Your task to perform on an android device: stop showing notifications on the lock screen Image 0: 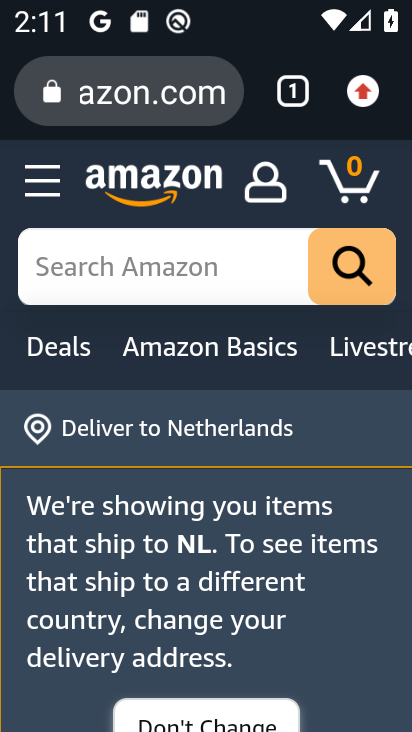
Step 0: press home button
Your task to perform on an android device: stop showing notifications on the lock screen Image 1: 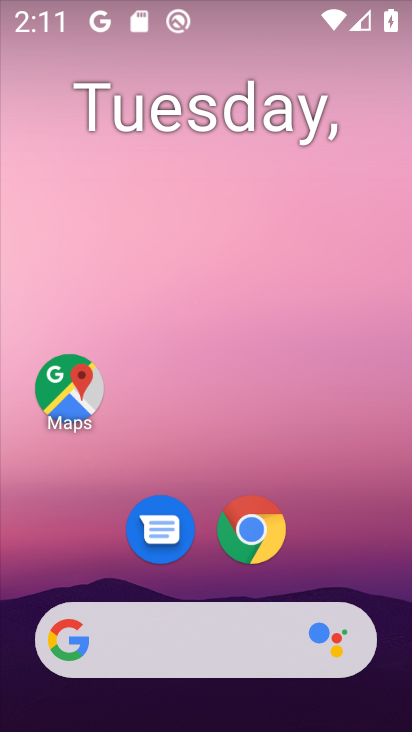
Step 1: click (334, 258)
Your task to perform on an android device: stop showing notifications on the lock screen Image 2: 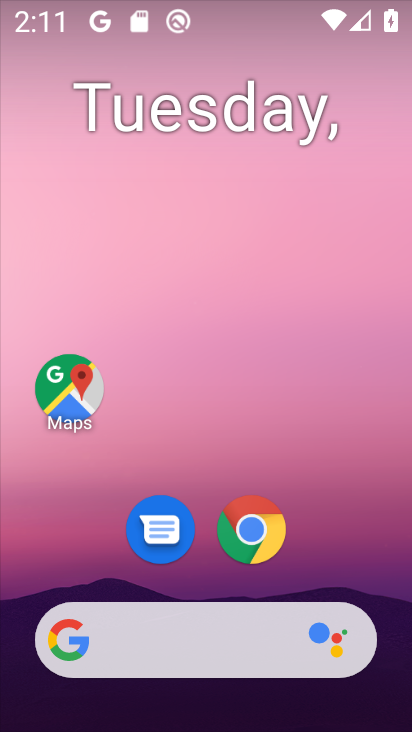
Step 2: drag from (294, 242) to (246, 97)
Your task to perform on an android device: stop showing notifications on the lock screen Image 3: 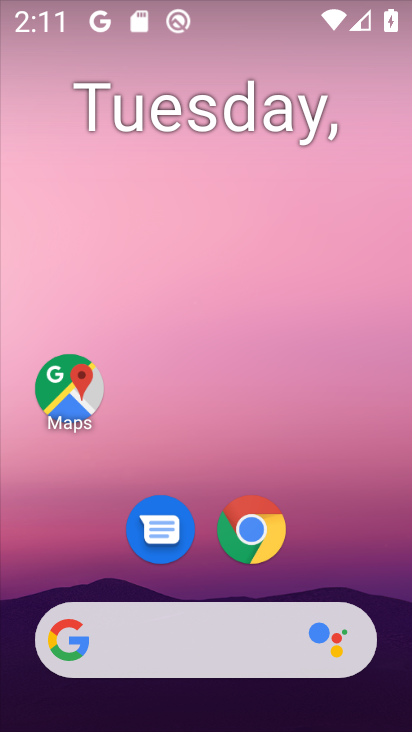
Step 3: drag from (338, 249) to (307, 103)
Your task to perform on an android device: stop showing notifications on the lock screen Image 4: 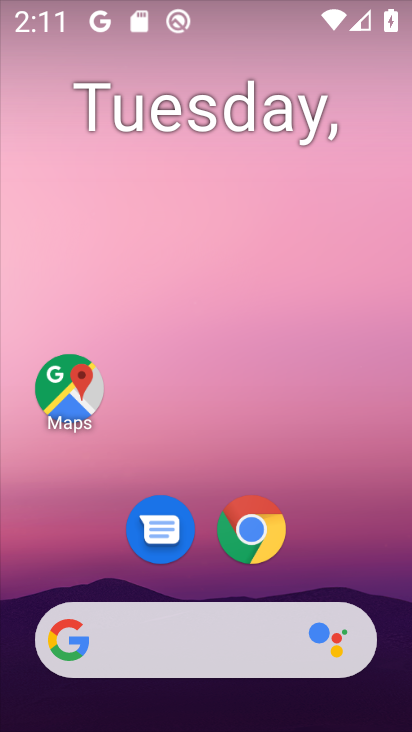
Step 4: drag from (338, 352) to (302, 91)
Your task to perform on an android device: stop showing notifications on the lock screen Image 5: 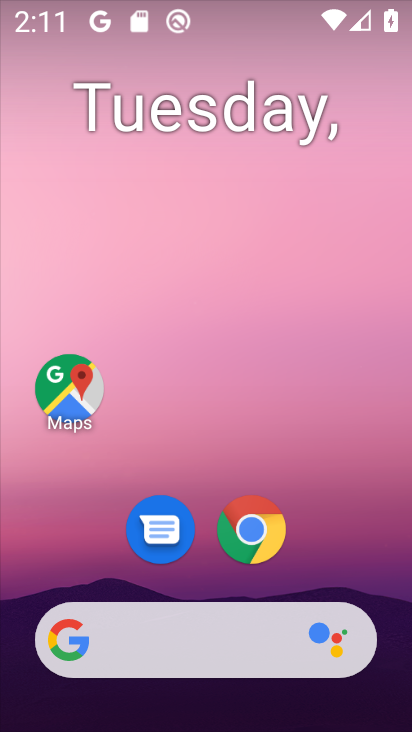
Step 5: drag from (375, 614) to (289, 154)
Your task to perform on an android device: stop showing notifications on the lock screen Image 6: 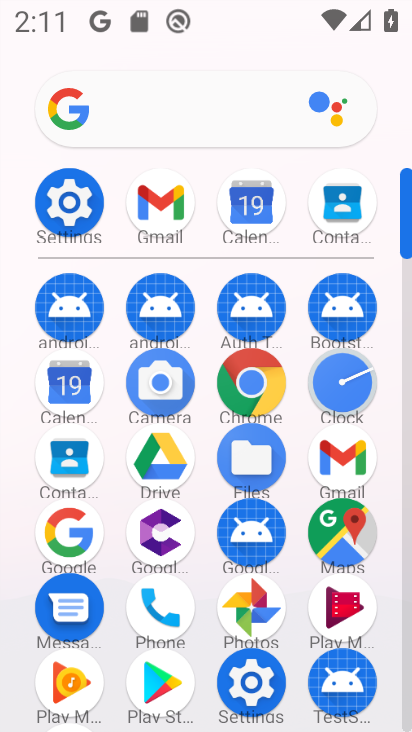
Step 6: click (66, 214)
Your task to perform on an android device: stop showing notifications on the lock screen Image 7: 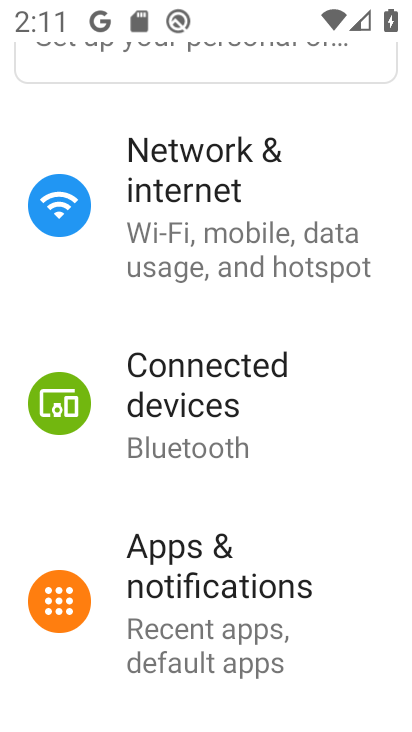
Step 7: click (191, 573)
Your task to perform on an android device: stop showing notifications on the lock screen Image 8: 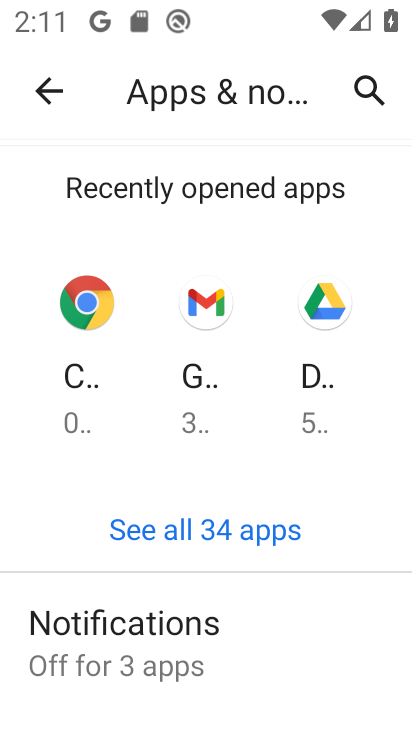
Step 8: drag from (328, 443) to (311, 305)
Your task to perform on an android device: stop showing notifications on the lock screen Image 9: 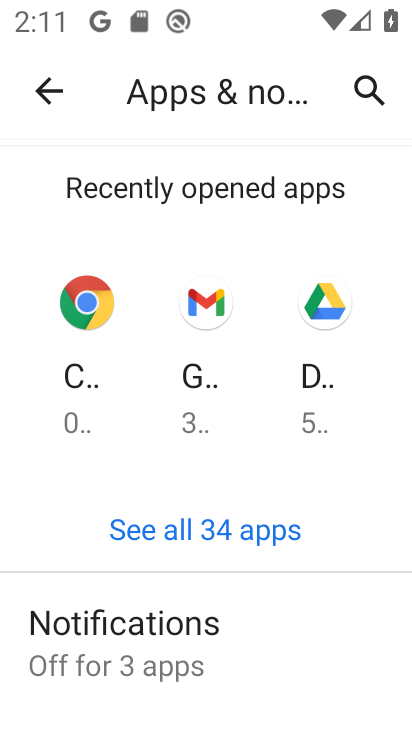
Step 9: drag from (346, 650) to (346, 216)
Your task to perform on an android device: stop showing notifications on the lock screen Image 10: 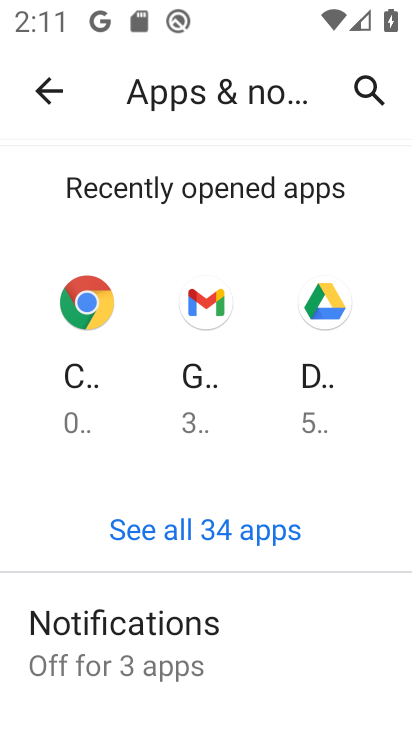
Step 10: drag from (314, 412) to (314, 373)
Your task to perform on an android device: stop showing notifications on the lock screen Image 11: 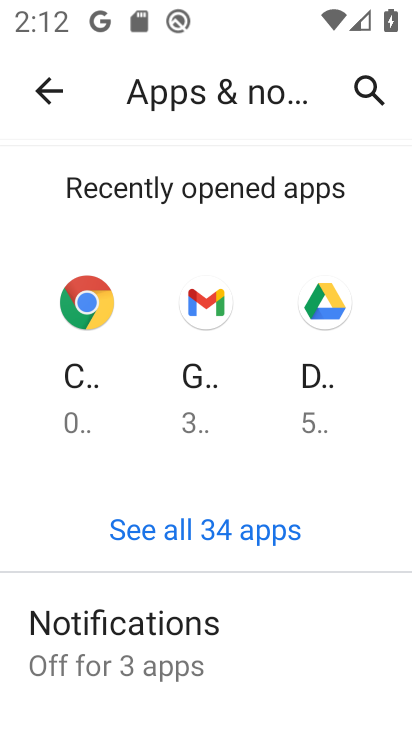
Step 11: drag from (325, 641) to (365, 223)
Your task to perform on an android device: stop showing notifications on the lock screen Image 12: 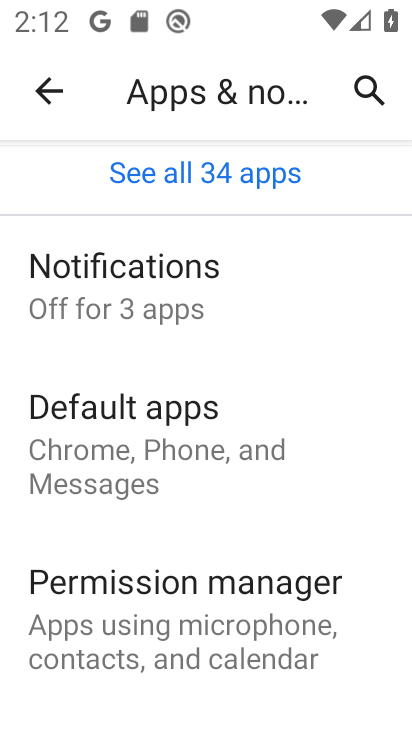
Step 12: drag from (356, 265) to (354, 166)
Your task to perform on an android device: stop showing notifications on the lock screen Image 13: 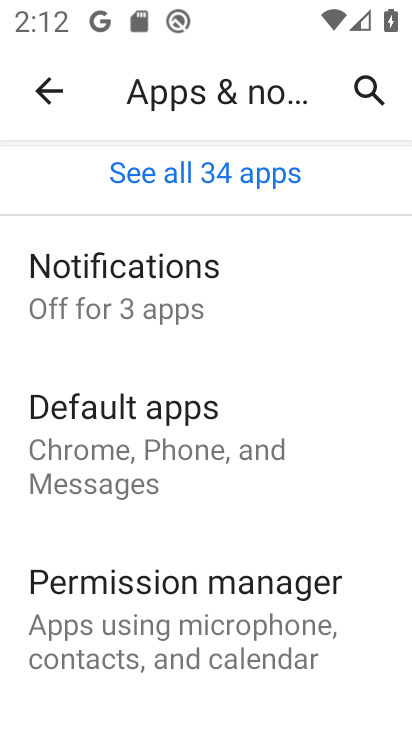
Step 13: drag from (363, 669) to (368, 275)
Your task to perform on an android device: stop showing notifications on the lock screen Image 14: 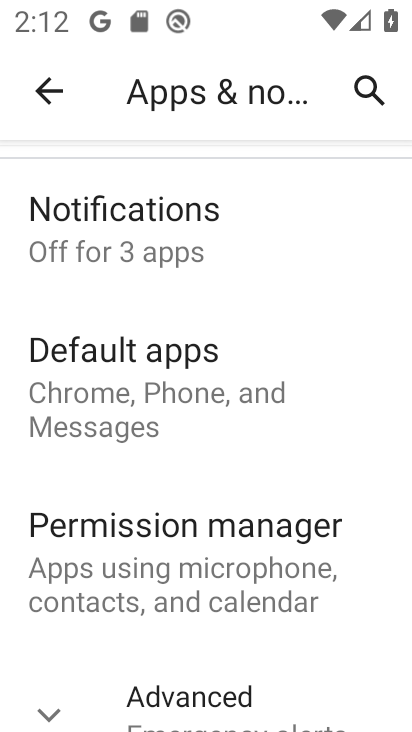
Step 14: drag from (372, 647) to (363, 286)
Your task to perform on an android device: stop showing notifications on the lock screen Image 15: 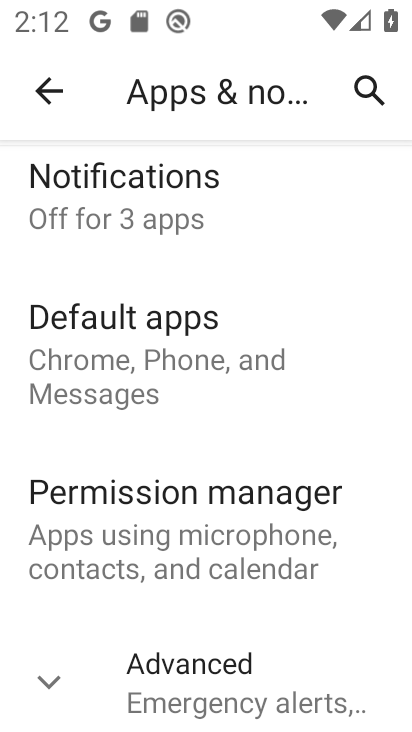
Step 15: drag from (350, 636) to (349, 319)
Your task to perform on an android device: stop showing notifications on the lock screen Image 16: 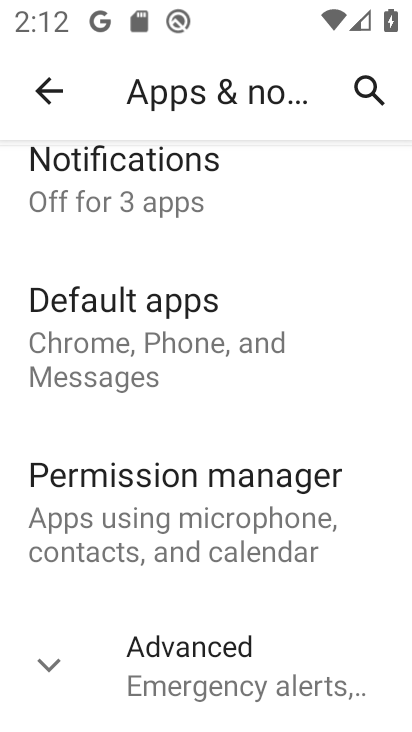
Step 16: drag from (327, 403) to (315, 565)
Your task to perform on an android device: stop showing notifications on the lock screen Image 17: 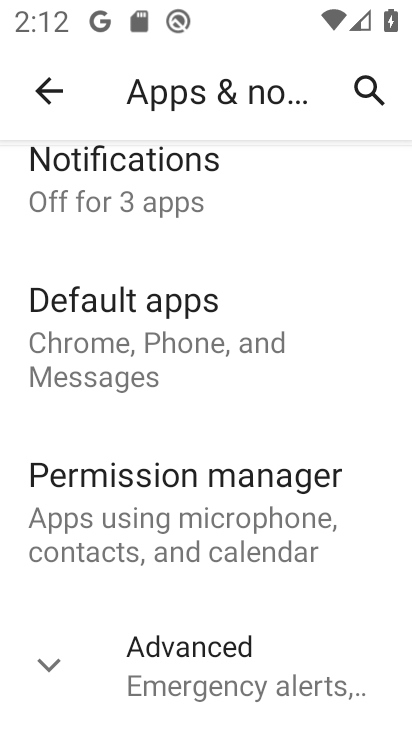
Step 17: click (139, 184)
Your task to perform on an android device: stop showing notifications on the lock screen Image 18: 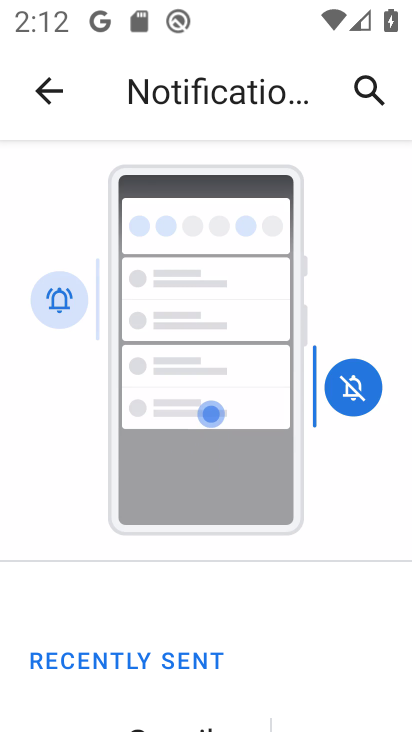
Step 18: drag from (278, 712) to (280, 309)
Your task to perform on an android device: stop showing notifications on the lock screen Image 19: 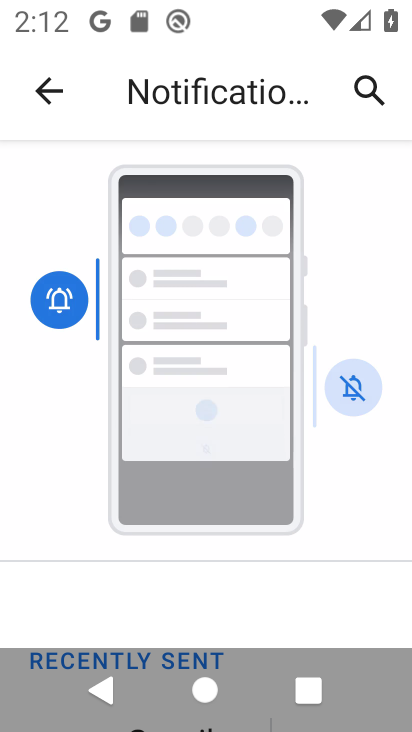
Step 19: drag from (280, 617) to (267, 114)
Your task to perform on an android device: stop showing notifications on the lock screen Image 20: 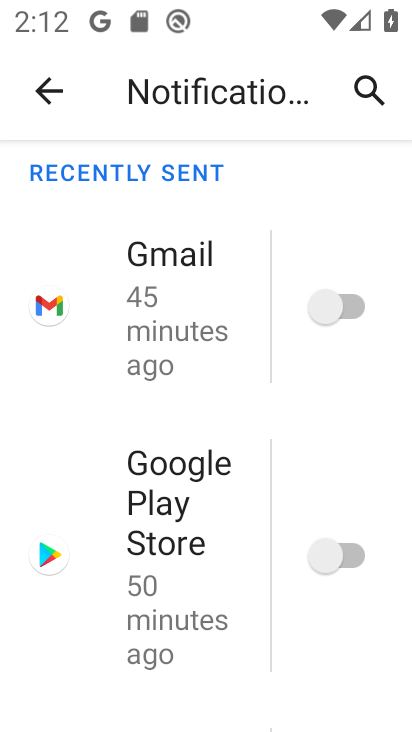
Step 20: drag from (259, 310) to (240, 101)
Your task to perform on an android device: stop showing notifications on the lock screen Image 21: 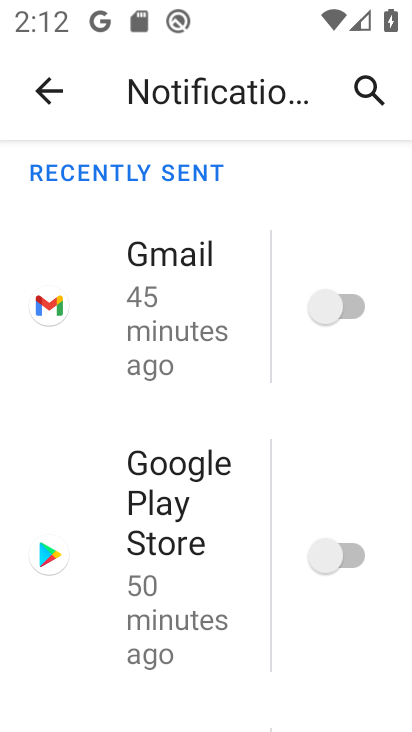
Step 21: drag from (242, 438) to (242, 189)
Your task to perform on an android device: stop showing notifications on the lock screen Image 22: 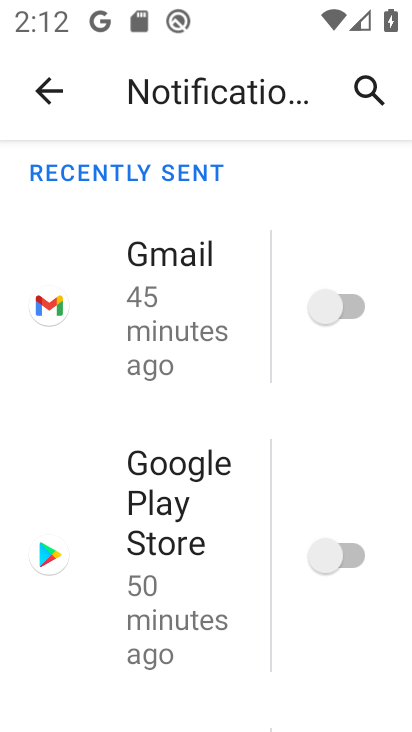
Step 22: drag from (257, 379) to (245, 309)
Your task to perform on an android device: stop showing notifications on the lock screen Image 23: 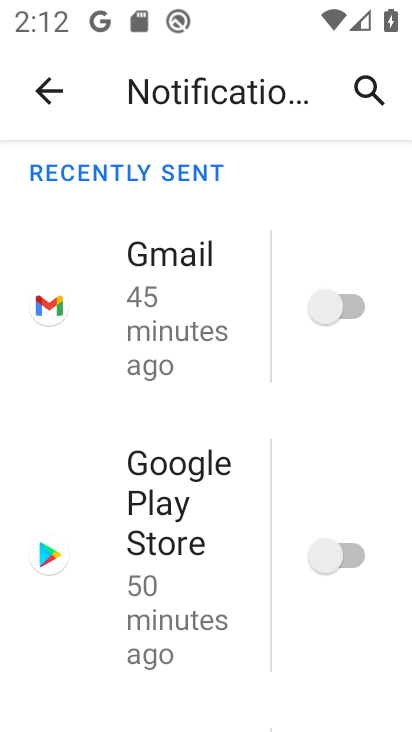
Step 23: drag from (267, 555) to (264, 185)
Your task to perform on an android device: stop showing notifications on the lock screen Image 24: 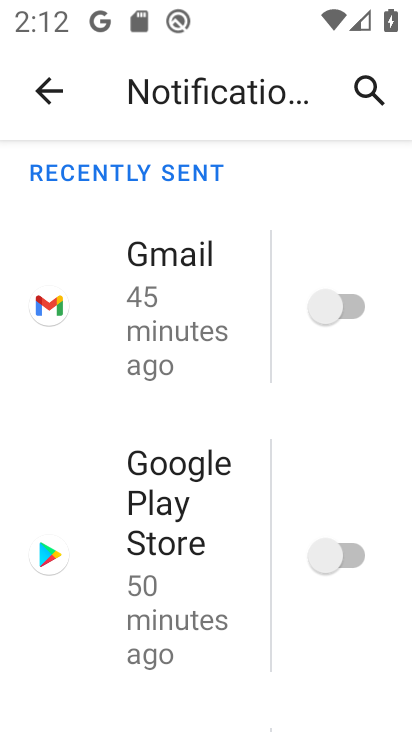
Step 24: drag from (405, 193) to (398, 93)
Your task to perform on an android device: stop showing notifications on the lock screen Image 25: 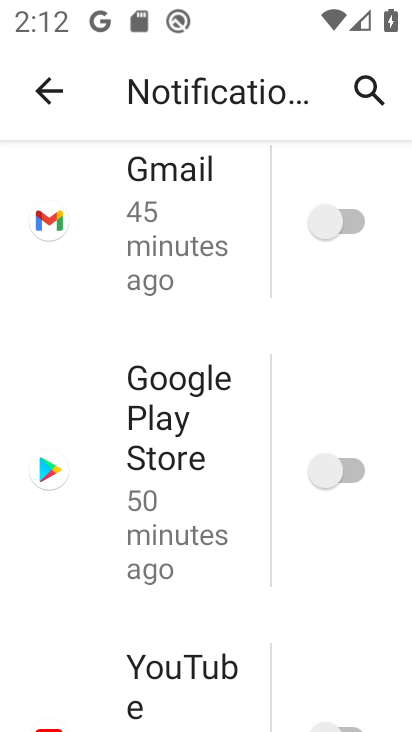
Step 25: drag from (409, 295) to (408, 203)
Your task to perform on an android device: stop showing notifications on the lock screen Image 26: 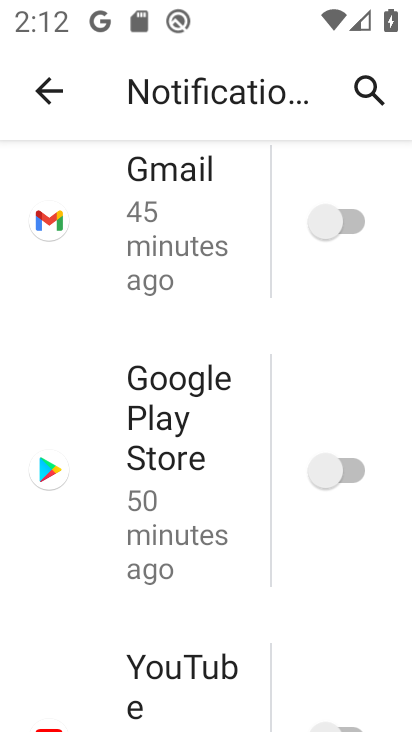
Step 26: drag from (406, 371) to (408, 229)
Your task to perform on an android device: stop showing notifications on the lock screen Image 27: 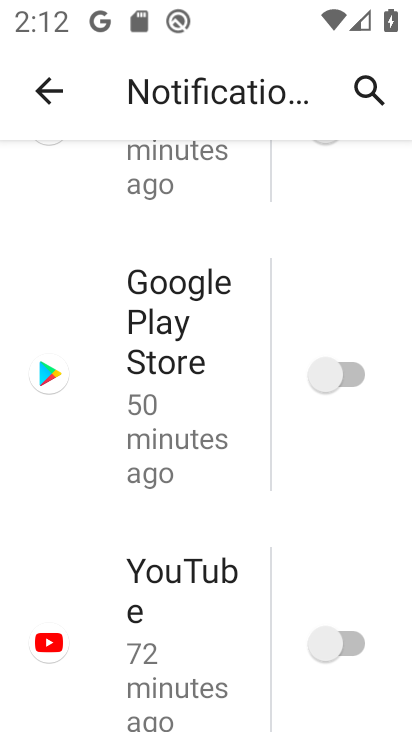
Step 27: drag from (409, 382) to (411, 235)
Your task to perform on an android device: stop showing notifications on the lock screen Image 28: 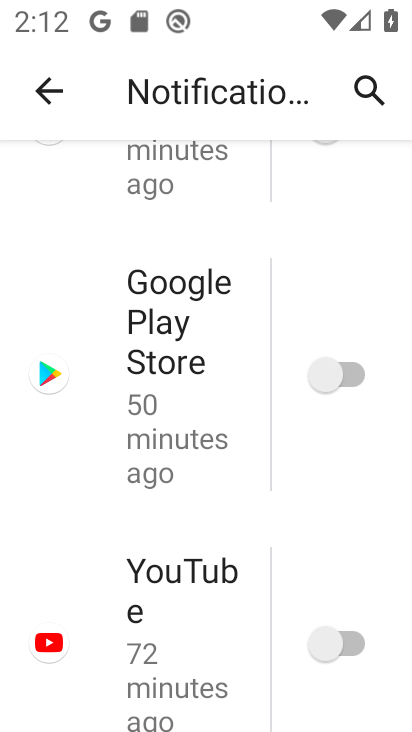
Step 28: click (410, 424)
Your task to perform on an android device: stop showing notifications on the lock screen Image 29: 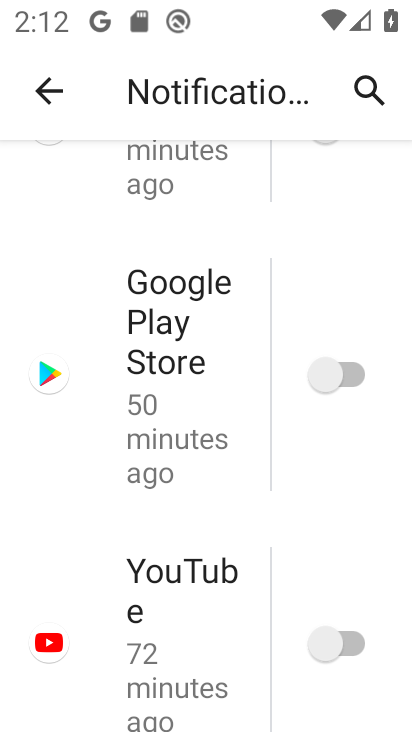
Step 29: drag from (401, 447) to (407, 161)
Your task to perform on an android device: stop showing notifications on the lock screen Image 30: 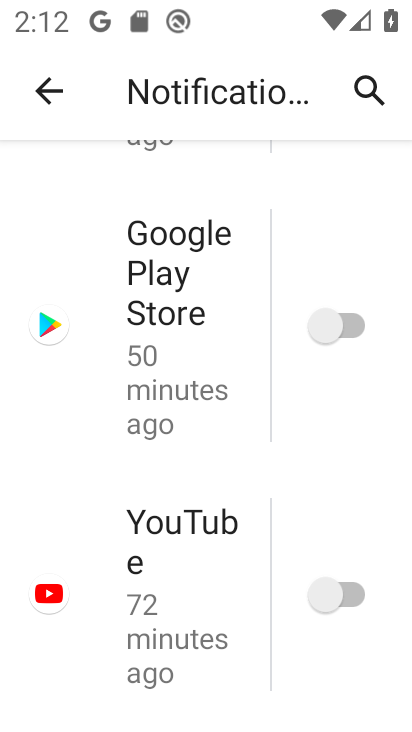
Step 30: drag from (408, 404) to (394, 165)
Your task to perform on an android device: stop showing notifications on the lock screen Image 31: 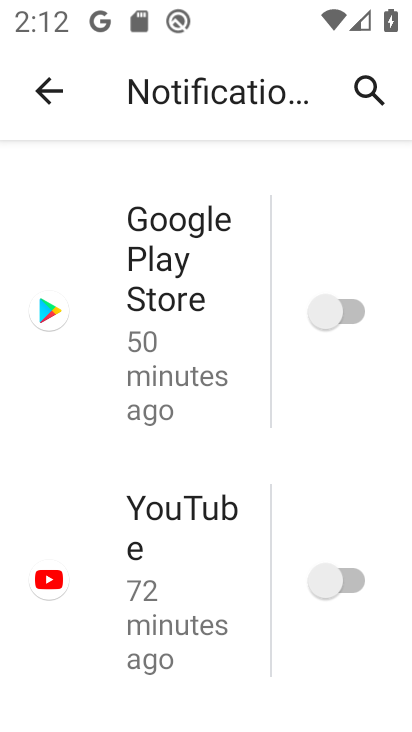
Step 31: drag from (404, 254) to (392, 177)
Your task to perform on an android device: stop showing notifications on the lock screen Image 32: 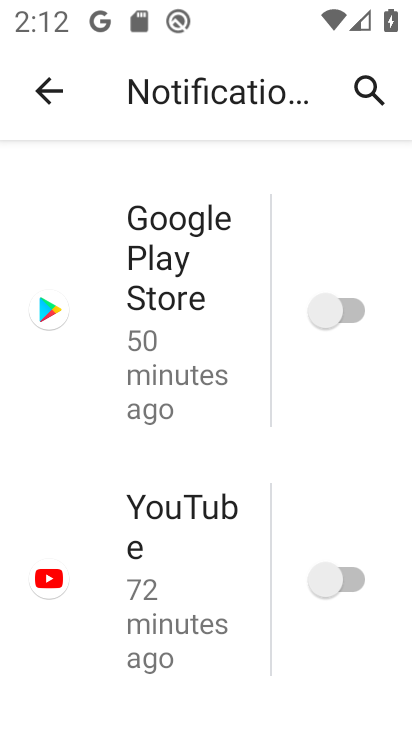
Step 32: drag from (407, 456) to (410, 146)
Your task to perform on an android device: stop showing notifications on the lock screen Image 33: 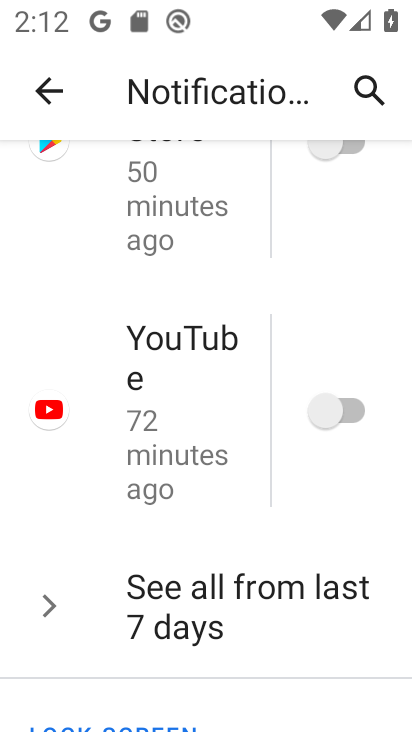
Step 33: drag from (403, 438) to (410, 230)
Your task to perform on an android device: stop showing notifications on the lock screen Image 34: 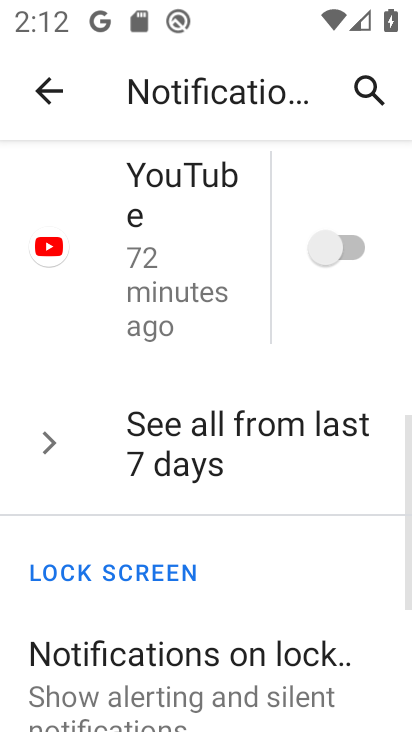
Step 34: drag from (405, 511) to (393, 170)
Your task to perform on an android device: stop showing notifications on the lock screen Image 35: 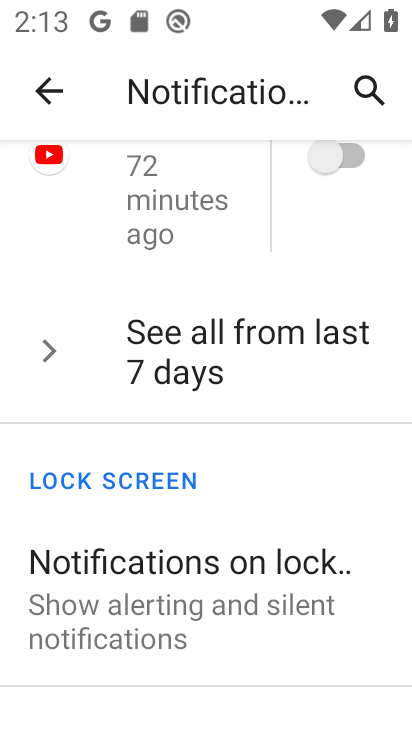
Step 35: click (95, 582)
Your task to perform on an android device: stop showing notifications on the lock screen Image 36: 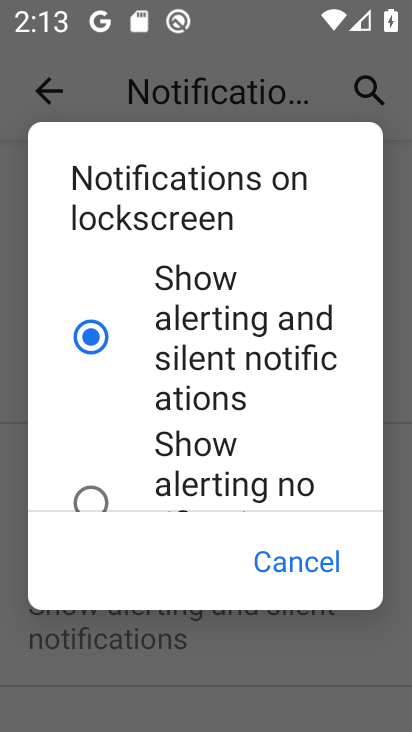
Step 36: drag from (162, 439) to (167, 242)
Your task to perform on an android device: stop showing notifications on the lock screen Image 37: 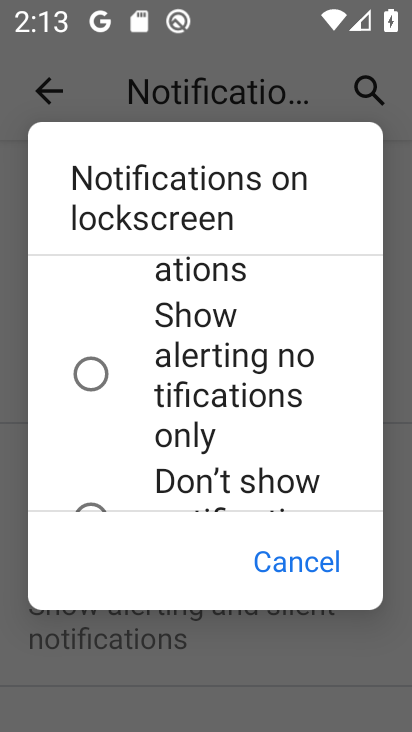
Step 37: drag from (315, 480) to (323, 229)
Your task to perform on an android device: stop showing notifications on the lock screen Image 38: 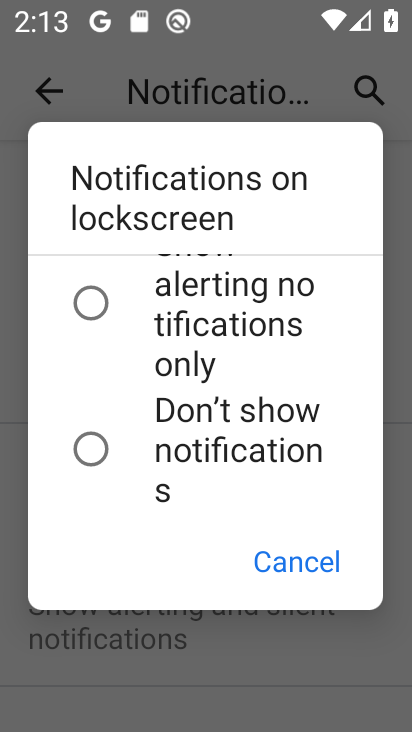
Step 38: click (96, 444)
Your task to perform on an android device: stop showing notifications on the lock screen Image 39: 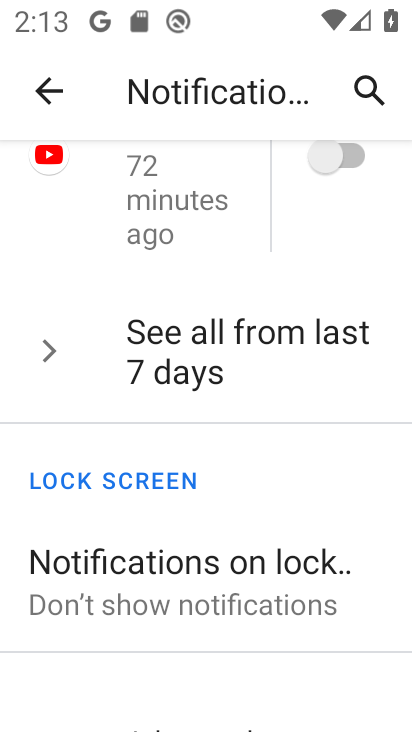
Step 39: task complete